Your task to perform on an android device: turn off sleep mode Image 0: 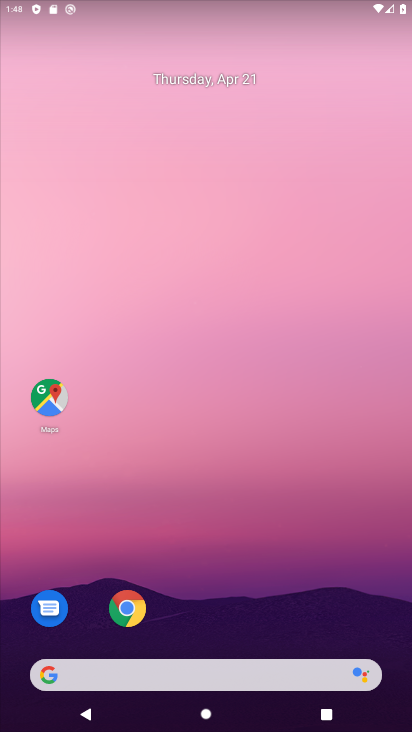
Step 0: drag from (240, 634) to (223, 211)
Your task to perform on an android device: turn off sleep mode Image 1: 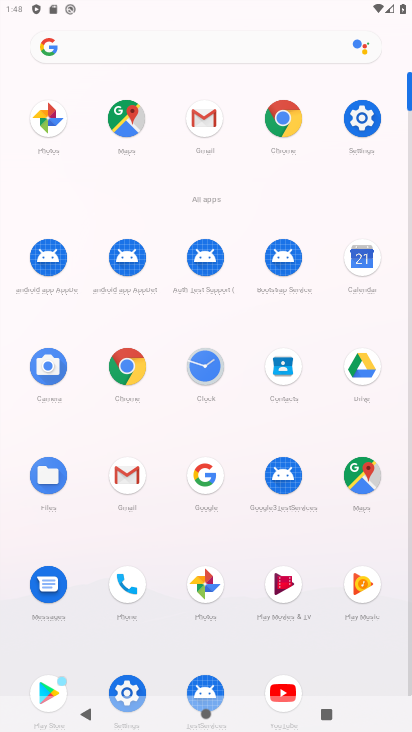
Step 1: click (349, 121)
Your task to perform on an android device: turn off sleep mode Image 2: 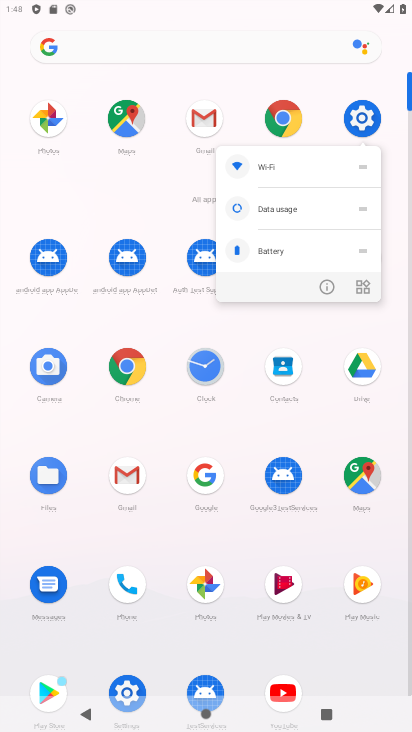
Step 2: click (349, 121)
Your task to perform on an android device: turn off sleep mode Image 3: 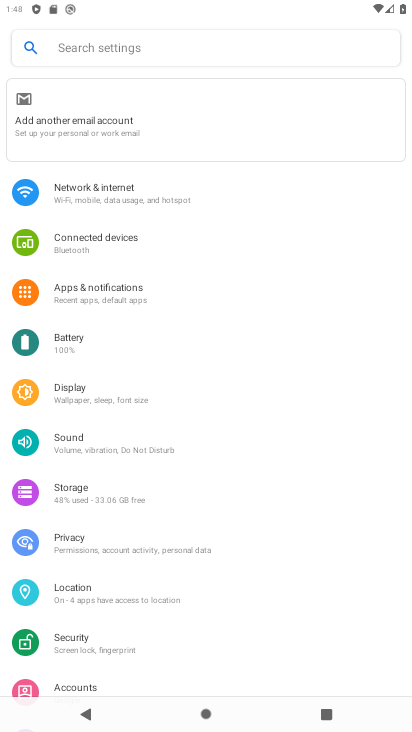
Step 3: click (122, 386)
Your task to perform on an android device: turn off sleep mode Image 4: 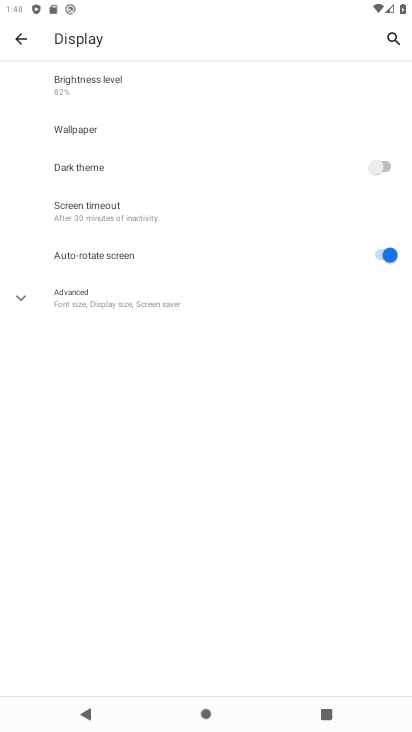
Step 4: click (122, 206)
Your task to perform on an android device: turn off sleep mode Image 5: 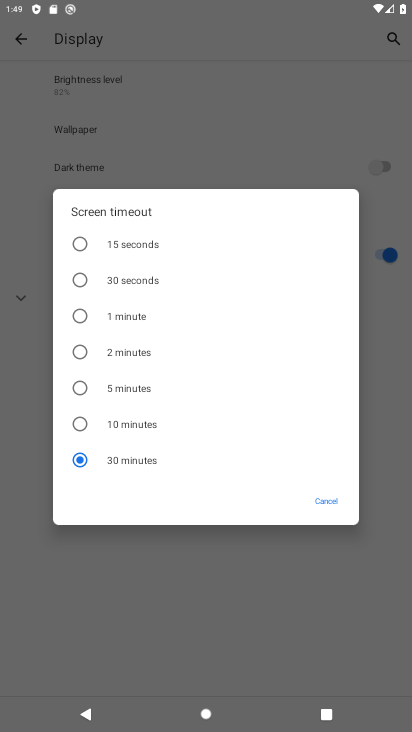
Step 5: click (129, 331)
Your task to perform on an android device: turn off sleep mode Image 6: 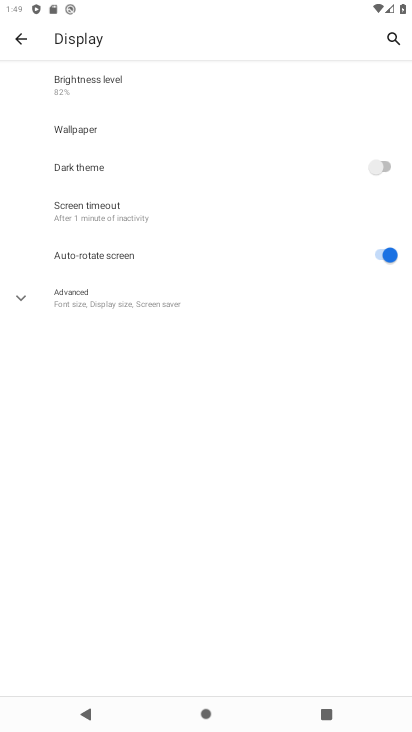
Step 6: task complete